Your task to perform on an android device: turn on location history Image 0: 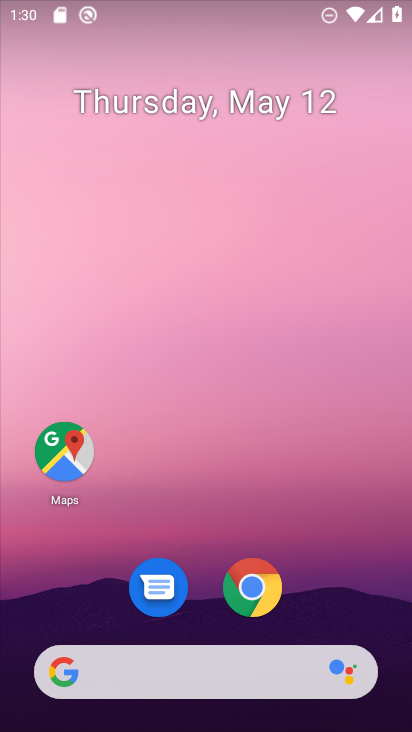
Step 0: drag from (336, 588) to (223, 204)
Your task to perform on an android device: turn on location history Image 1: 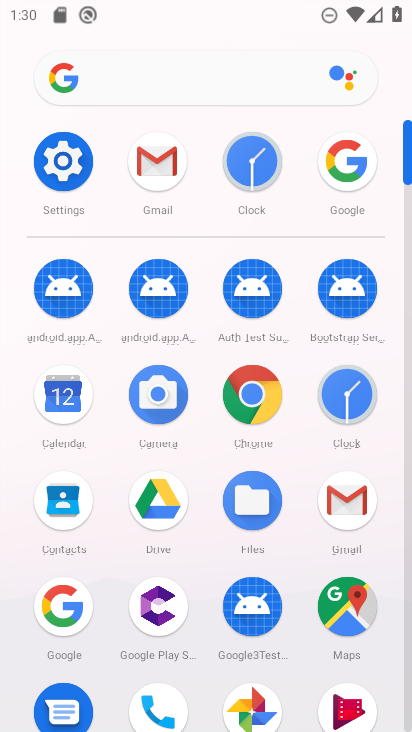
Step 1: click (63, 161)
Your task to perform on an android device: turn on location history Image 2: 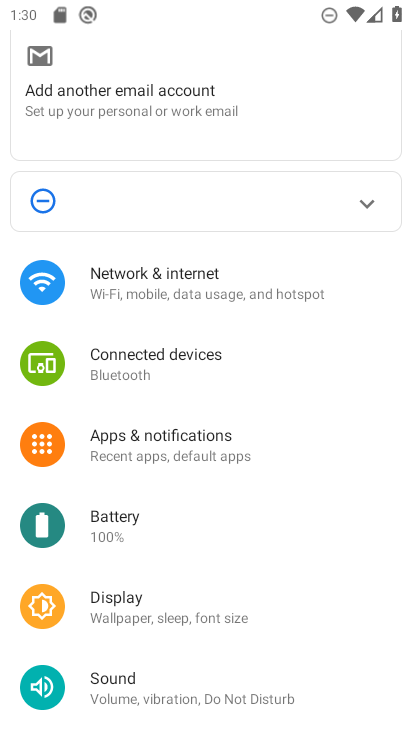
Step 2: drag from (191, 579) to (167, 334)
Your task to perform on an android device: turn on location history Image 3: 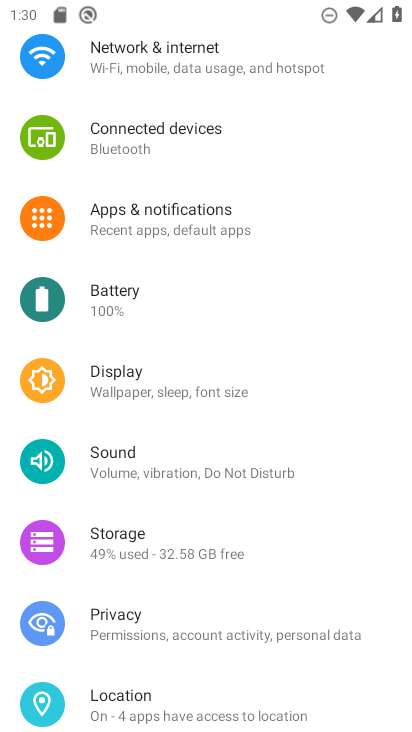
Step 3: drag from (203, 566) to (183, 424)
Your task to perform on an android device: turn on location history Image 4: 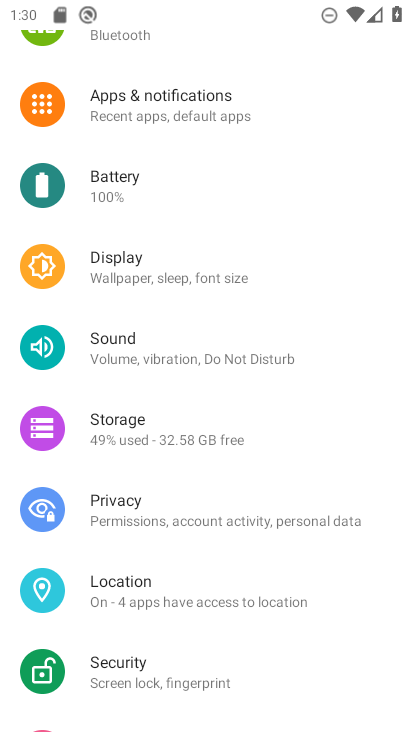
Step 4: click (141, 578)
Your task to perform on an android device: turn on location history Image 5: 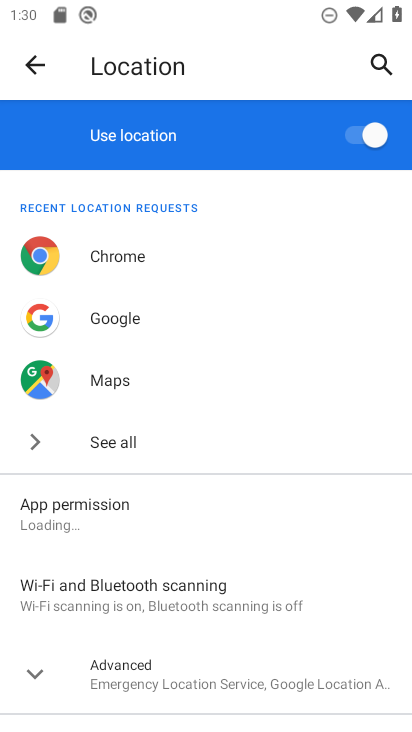
Step 5: drag from (148, 627) to (246, 416)
Your task to perform on an android device: turn on location history Image 6: 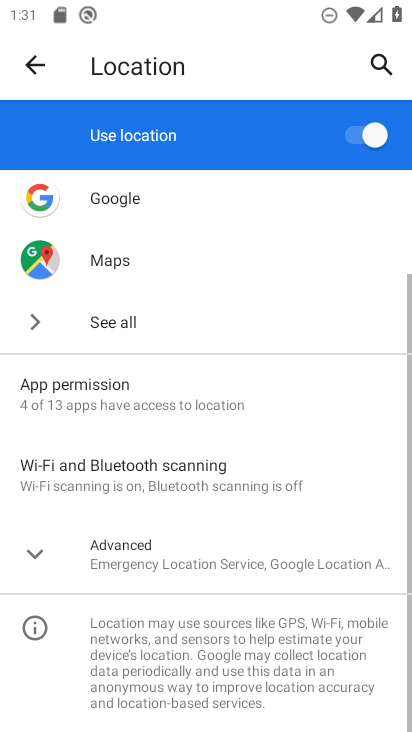
Step 6: click (198, 570)
Your task to perform on an android device: turn on location history Image 7: 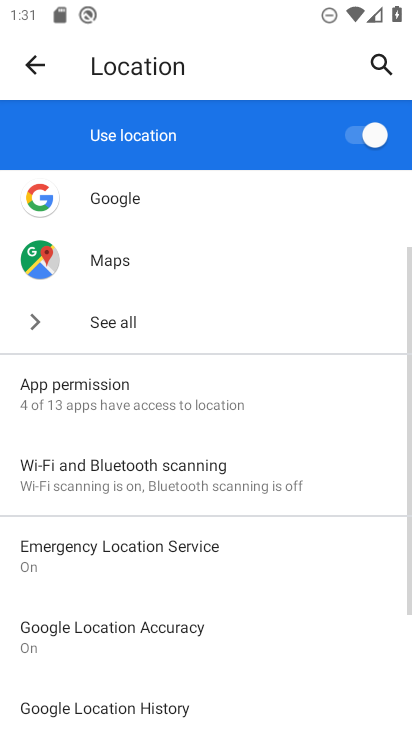
Step 7: drag from (172, 668) to (256, 510)
Your task to perform on an android device: turn on location history Image 8: 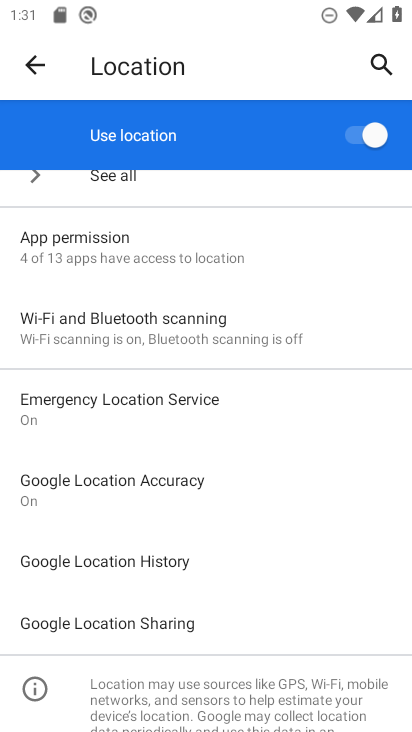
Step 8: click (163, 569)
Your task to perform on an android device: turn on location history Image 9: 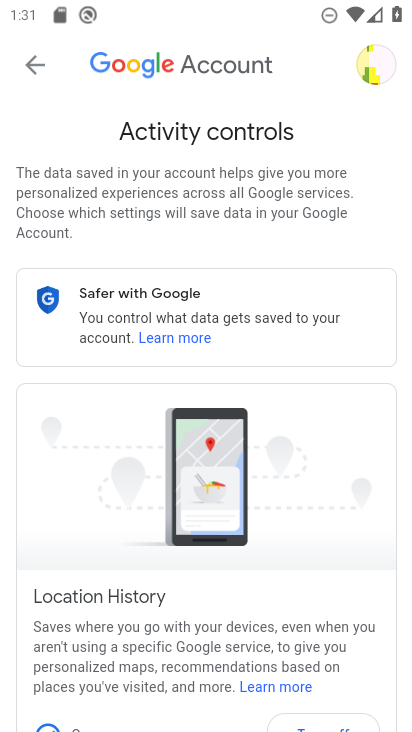
Step 9: task complete